Your task to perform on an android device: Search for flights from Barcelona to Boston Image 0: 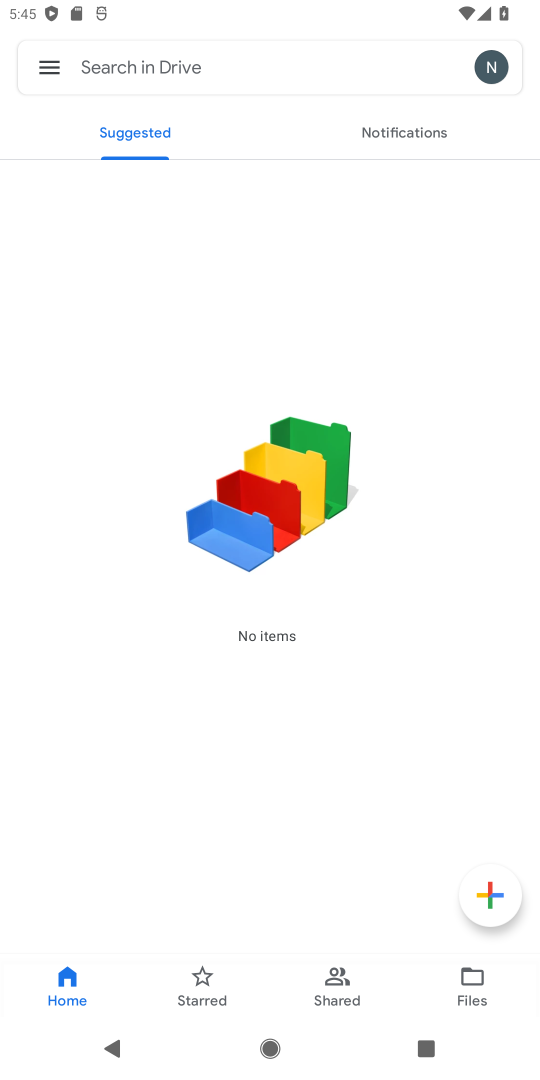
Step 0: press home button
Your task to perform on an android device: Search for flights from Barcelona to Boston Image 1: 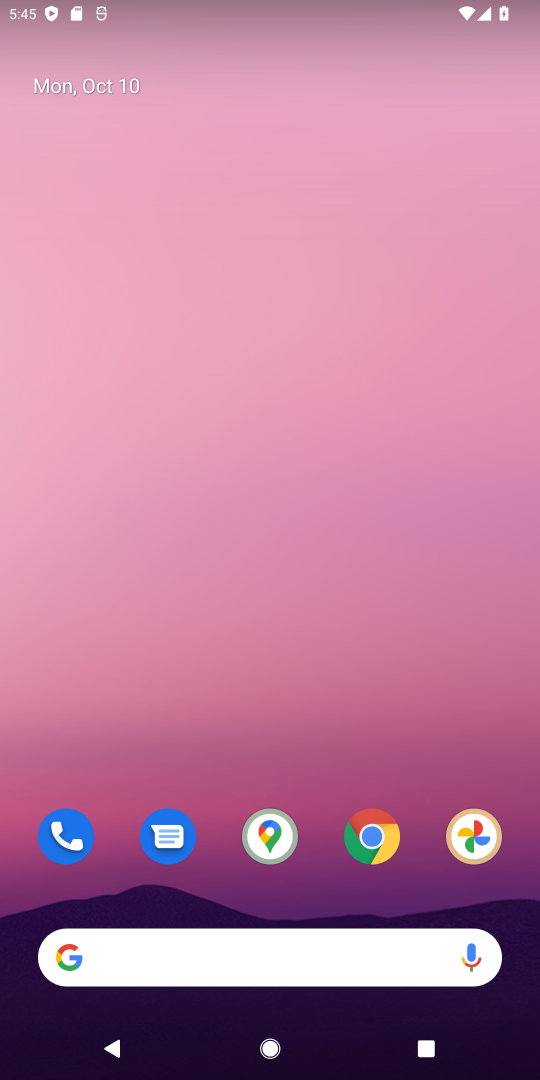
Step 1: click (371, 837)
Your task to perform on an android device: Search for flights from Barcelona to Boston Image 2: 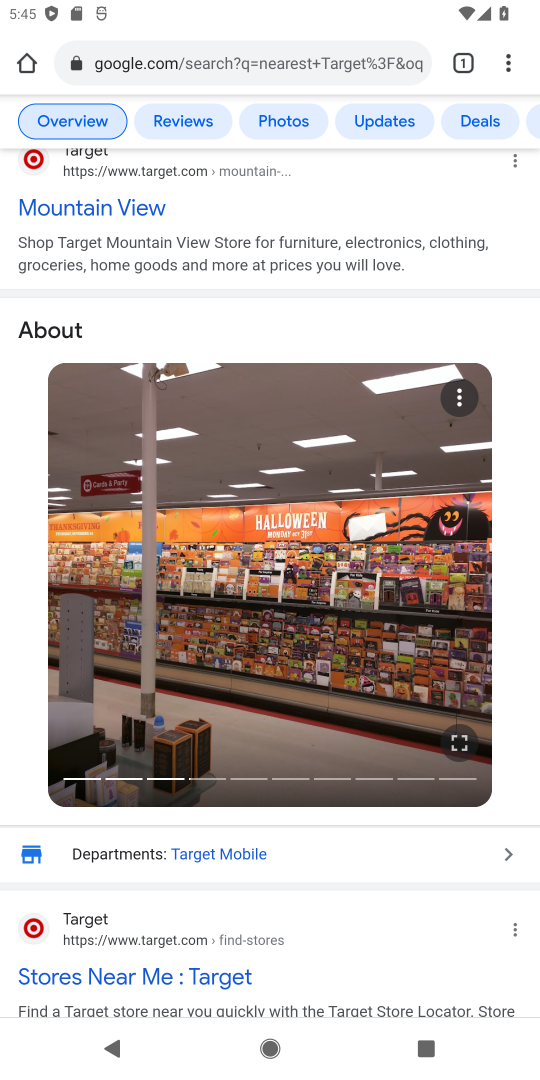
Step 2: click (249, 45)
Your task to perform on an android device: Search for flights from Barcelona to Boston Image 3: 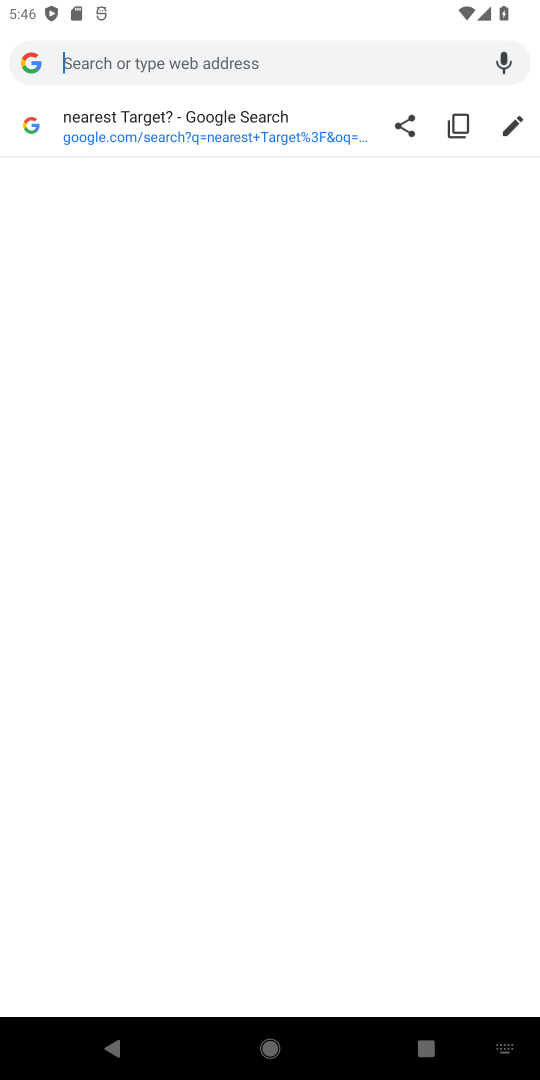
Step 3: type "flights from barcelona to boston"
Your task to perform on an android device: Search for flights from Barcelona to Boston Image 4: 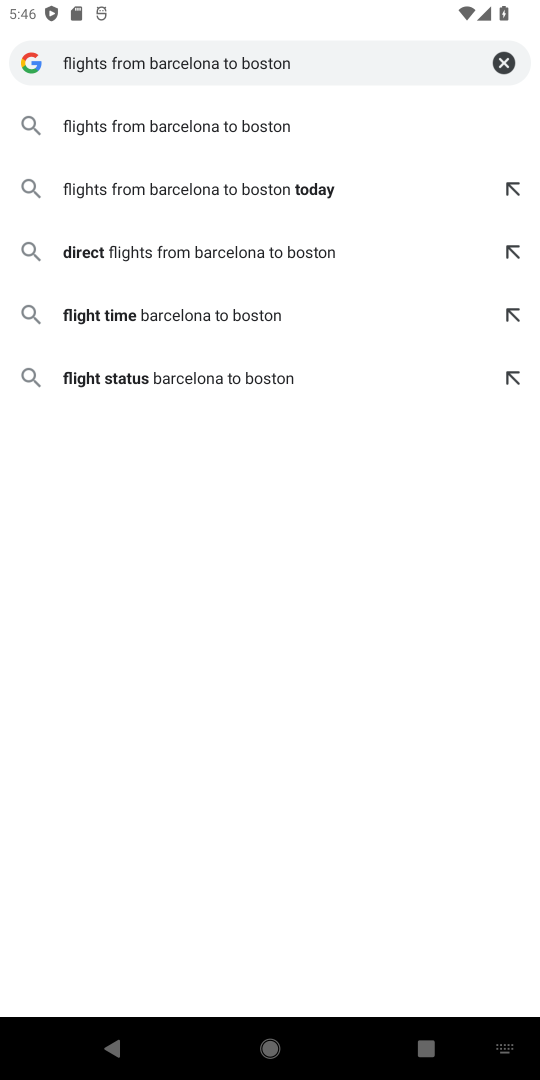
Step 4: click (123, 129)
Your task to perform on an android device: Search for flights from Barcelona to Boston Image 5: 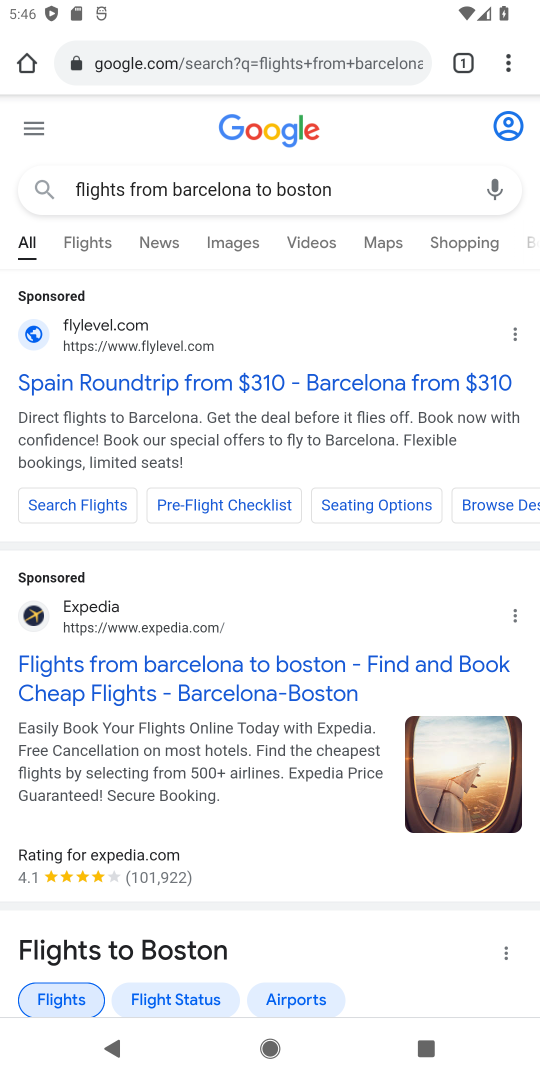
Step 5: click (119, 680)
Your task to perform on an android device: Search for flights from Barcelona to Boston Image 6: 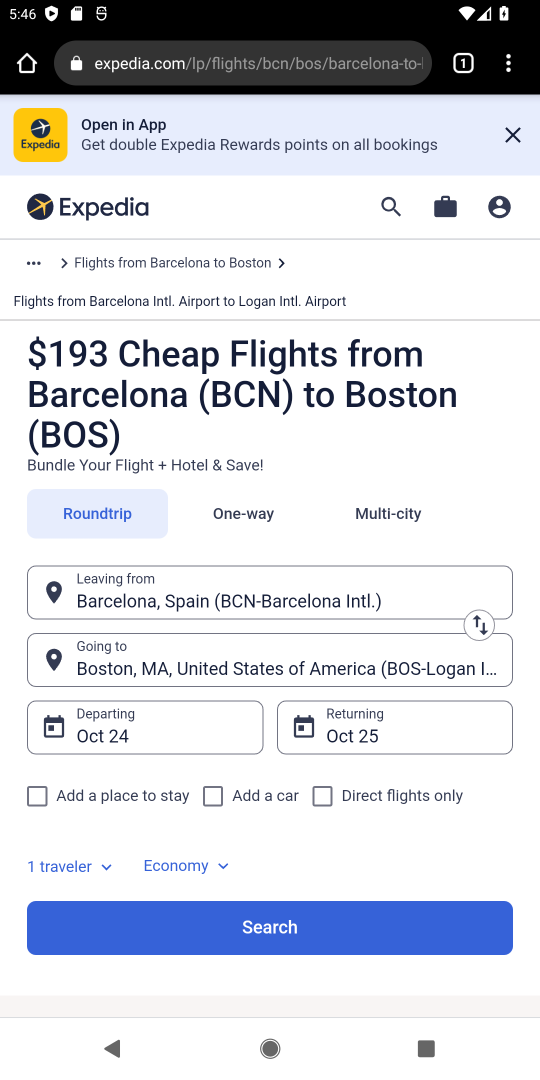
Step 6: click (270, 926)
Your task to perform on an android device: Search for flights from Barcelona to Boston Image 7: 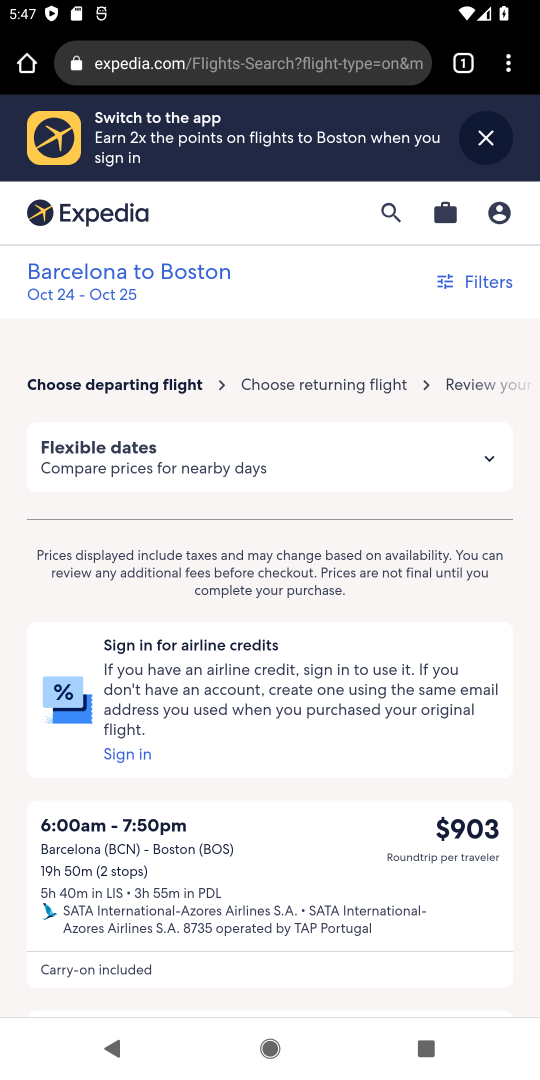
Step 7: task complete